Your task to perform on an android device: turn on bluetooth scan Image 0: 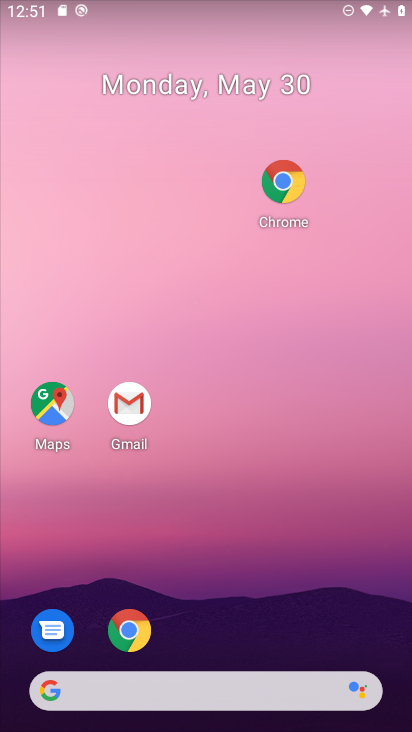
Step 0: drag from (232, 520) to (188, 89)
Your task to perform on an android device: turn on bluetooth scan Image 1: 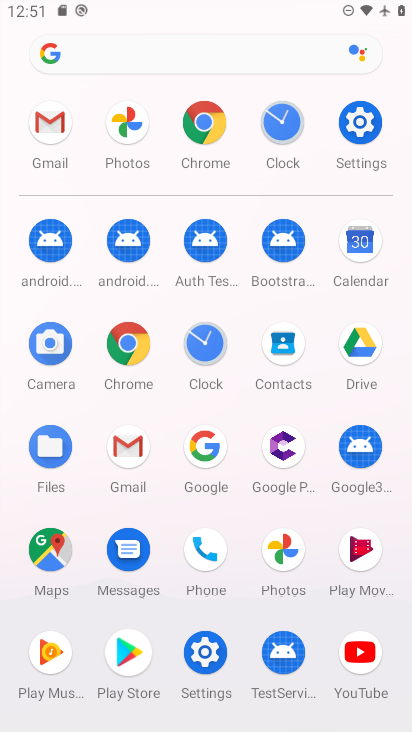
Step 1: click (366, 115)
Your task to perform on an android device: turn on bluetooth scan Image 2: 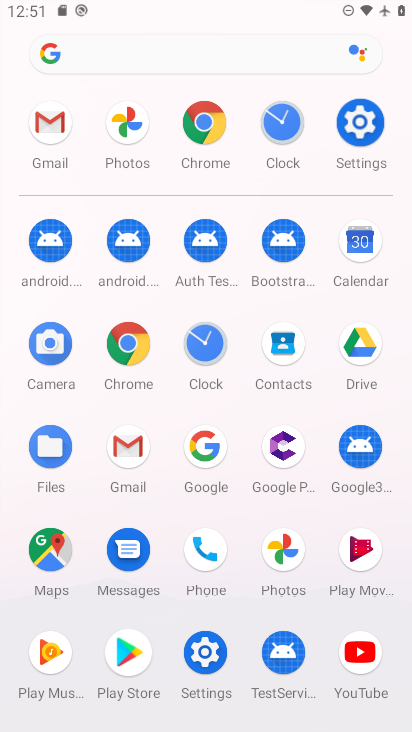
Step 2: click (369, 115)
Your task to perform on an android device: turn on bluetooth scan Image 3: 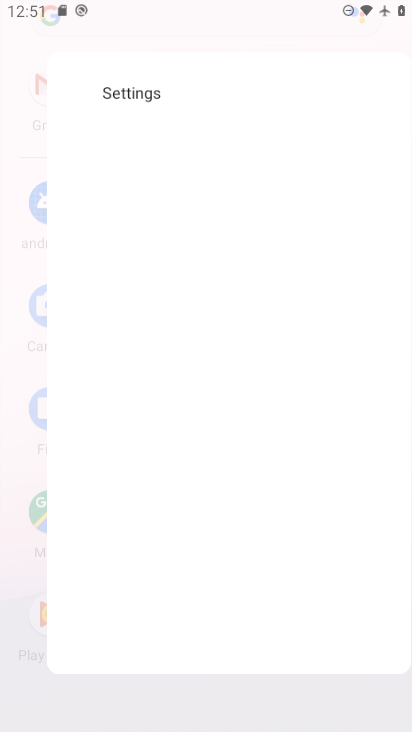
Step 3: click (372, 116)
Your task to perform on an android device: turn on bluetooth scan Image 4: 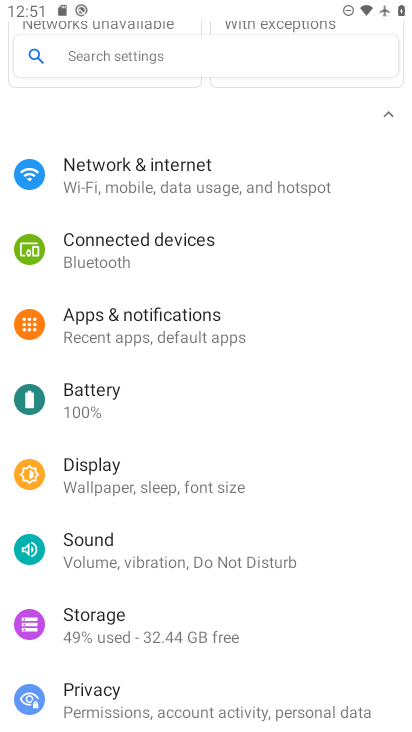
Step 4: drag from (121, 597) to (105, 221)
Your task to perform on an android device: turn on bluetooth scan Image 5: 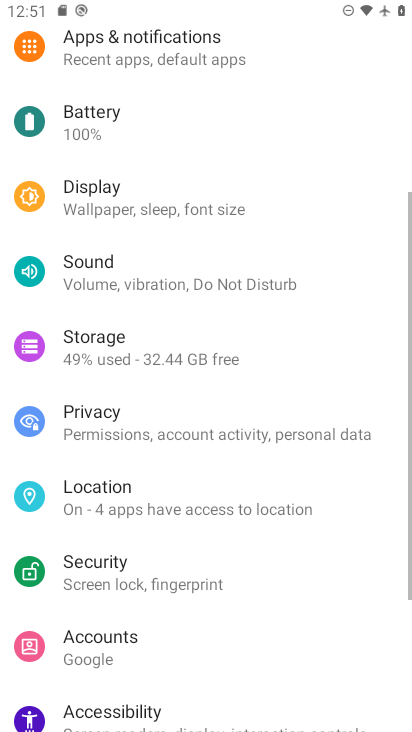
Step 5: drag from (189, 570) to (161, 243)
Your task to perform on an android device: turn on bluetooth scan Image 6: 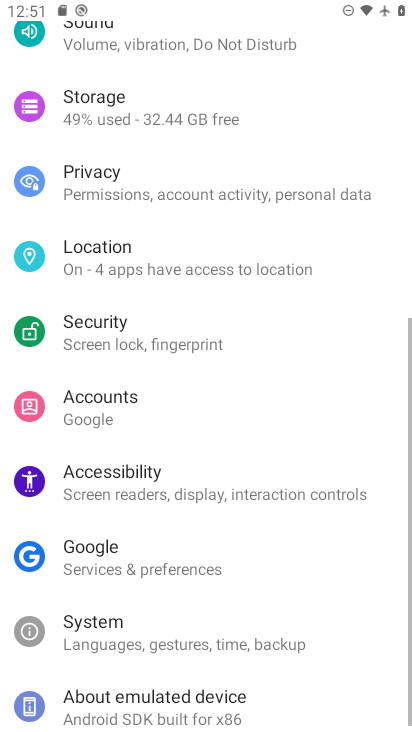
Step 6: drag from (169, 374) to (169, 218)
Your task to perform on an android device: turn on bluetooth scan Image 7: 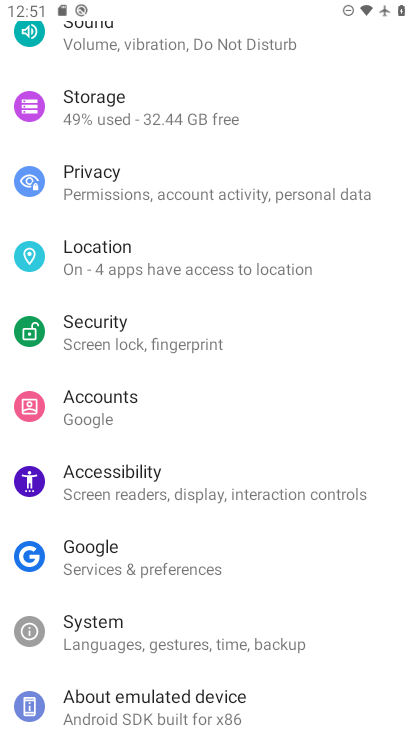
Step 7: click (131, 259)
Your task to perform on an android device: turn on bluetooth scan Image 8: 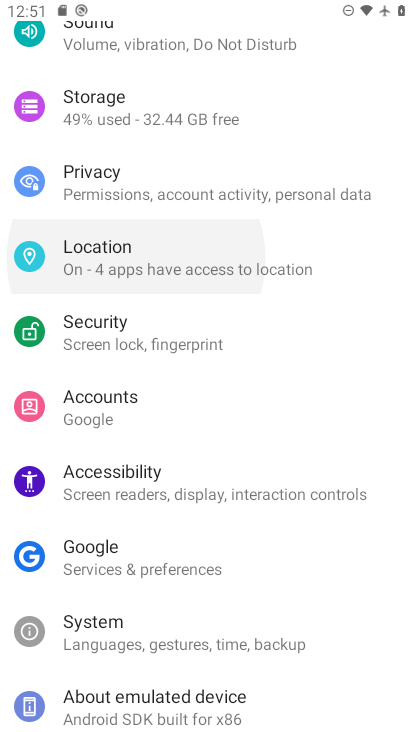
Step 8: click (131, 259)
Your task to perform on an android device: turn on bluetooth scan Image 9: 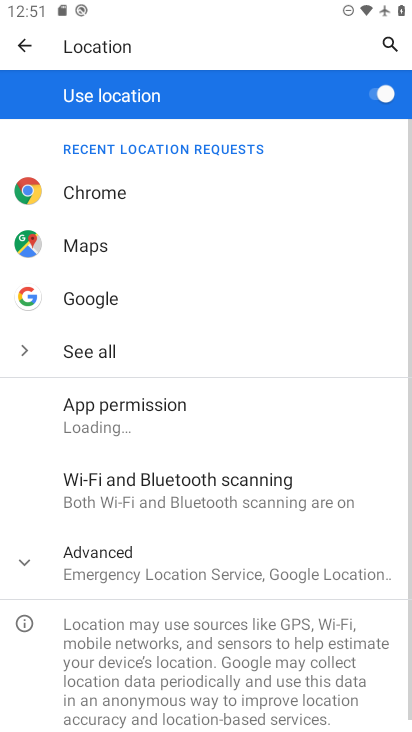
Step 9: click (83, 407)
Your task to perform on an android device: turn on bluetooth scan Image 10: 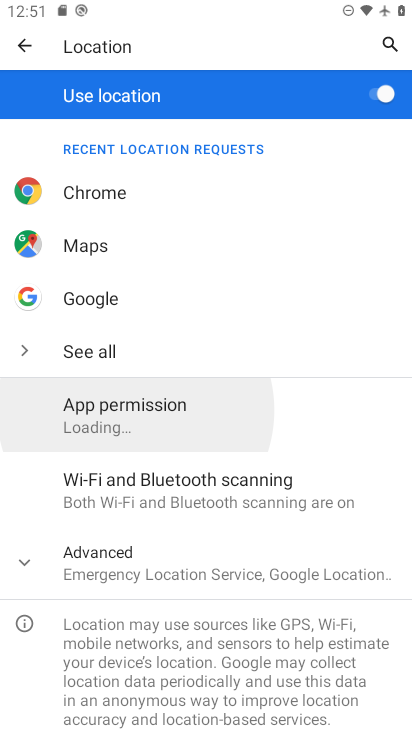
Step 10: click (84, 406)
Your task to perform on an android device: turn on bluetooth scan Image 11: 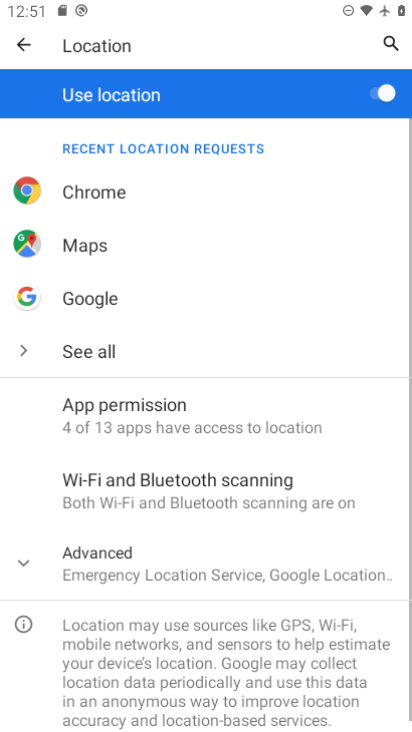
Step 11: click (87, 406)
Your task to perform on an android device: turn on bluetooth scan Image 12: 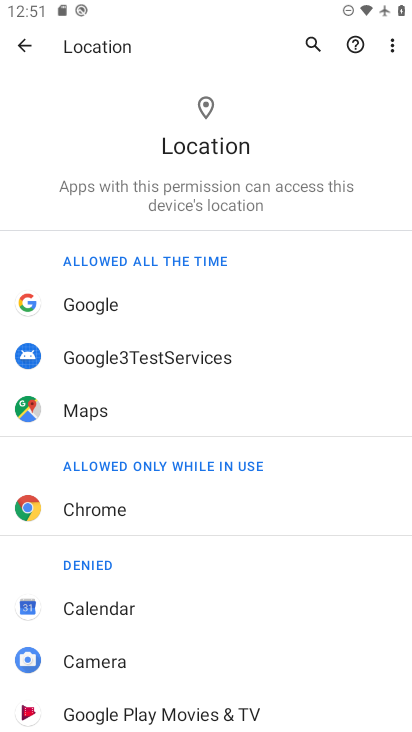
Step 12: click (27, 44)
Your task to perform on an android device: turn on bluetooth scan Image 13: 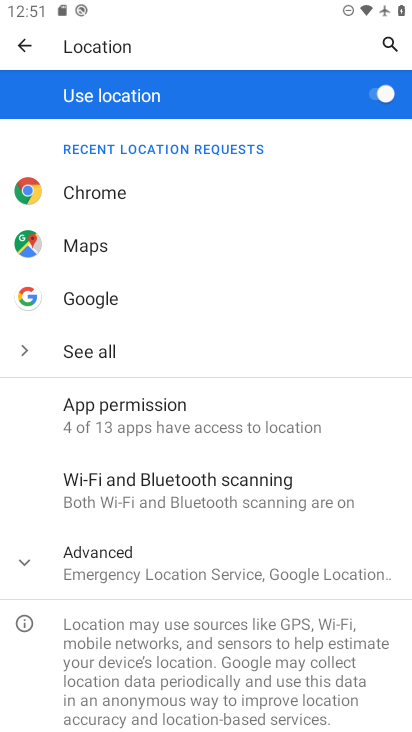
Step 13: click (137, 500)
Your task to perform on an android device: turn on bluetooth scan Image 14: 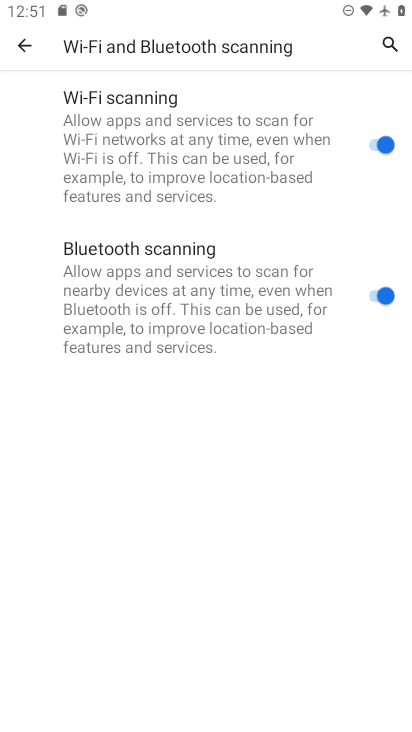
Step 14: task complete